Your task to perform on an android device: Open internet settings Image 0: 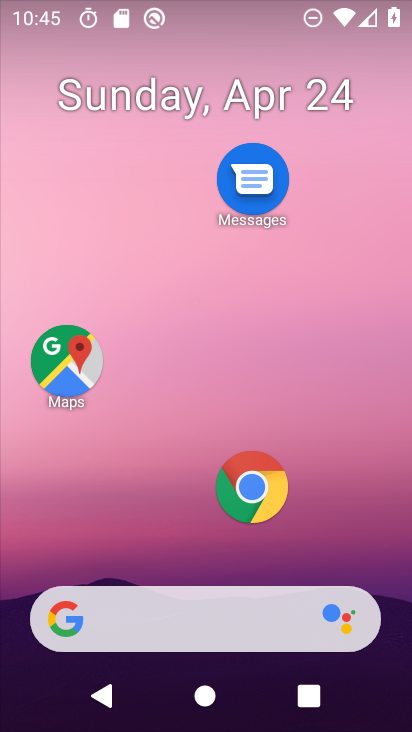
Step 0: drag from (149, 477) to (364, 496)
Your task to perform on an android device: Open internet settings Image 1: 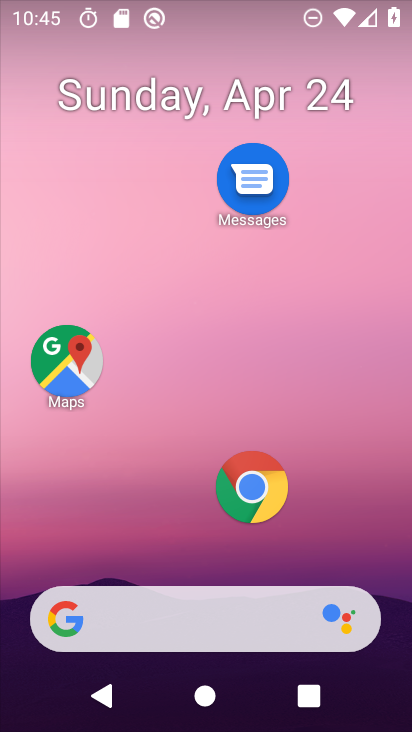
Step 1: drag from (155, 421) to (214, 3)
Your task to perform on an android device: Open internet settings Image 2: 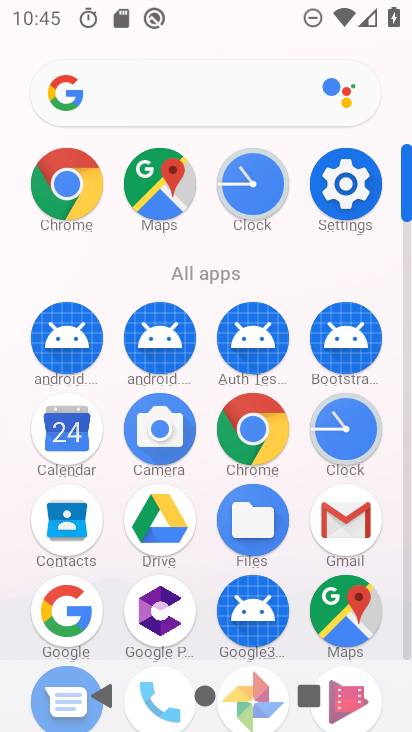
Step 2: click (359, 198)
Your task to perform on an android device: Open internet settings Image 3: 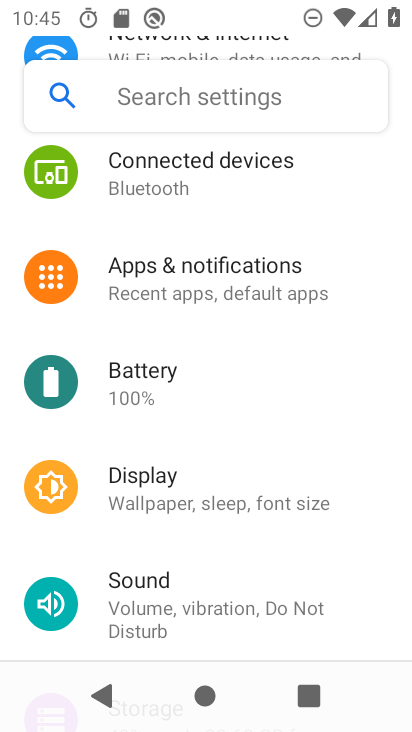
Step 3: drag from (195, 259) to (169, 566)
Your task to perform on an android device: Open internet settings Image 4: 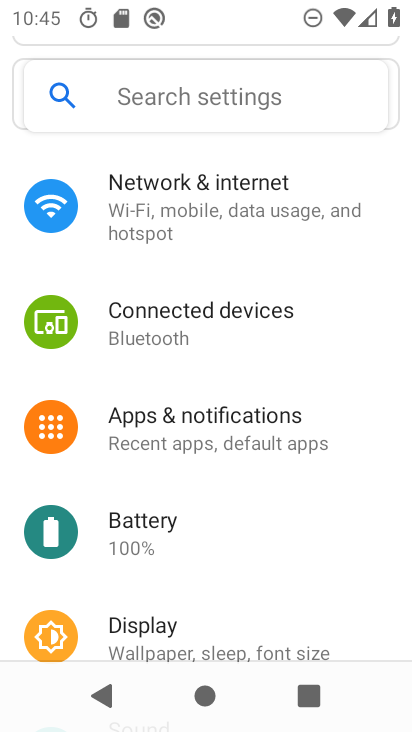
Step 4: click (207, 232)
Your task to perform on an android device: Open internet settings Image 5: 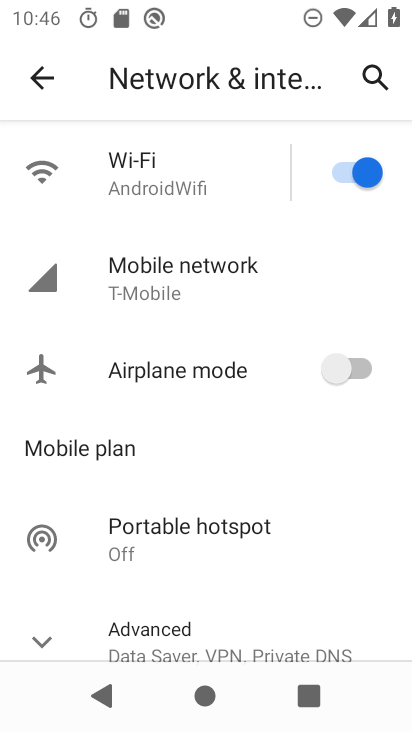
Step 5: task complete